Your task to perform on an android device: Is it going to rain tomorrow? Image 0: 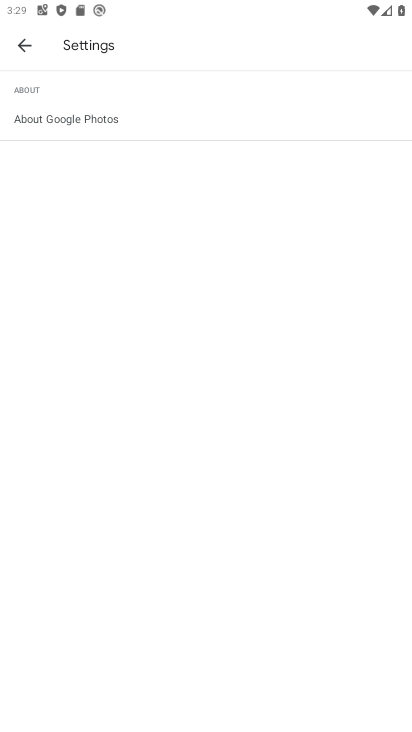
Step 0: press back button
Your task to perform on an android device: Is it going to rain tomorrow? Image 1: 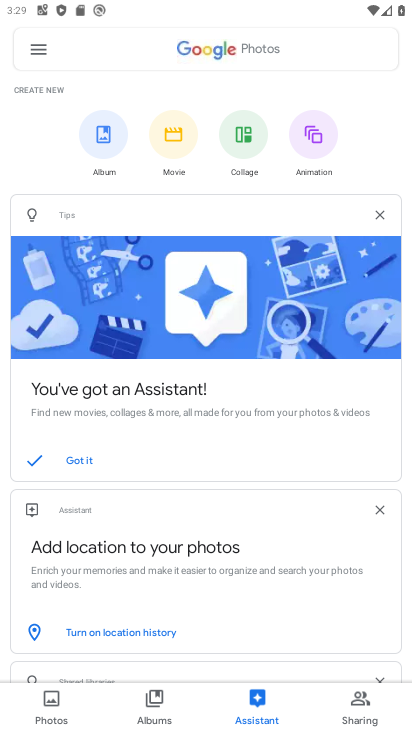
Step 1: press back button
Your task to perform on an android device: Is it going to rain tomorrow? Image 2: 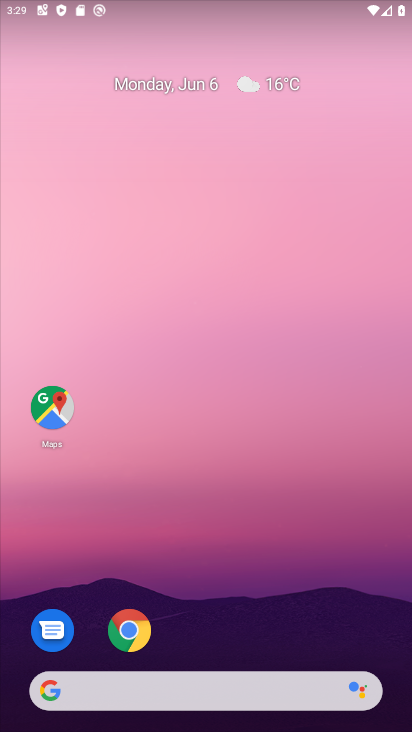
Step 2: click (248, 82)
Your task to perform on an android device: Is it going to rain tomorrow? Image 3: 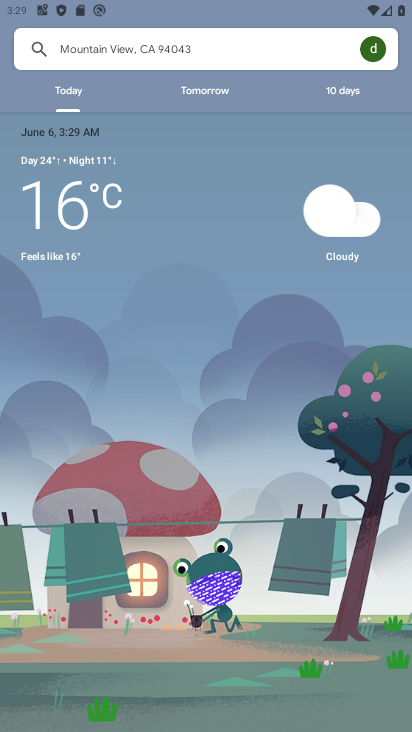
Step 3: click (192, 88)
Your task to perform on an android device: Is it going to rain tomorrow? Image 4: 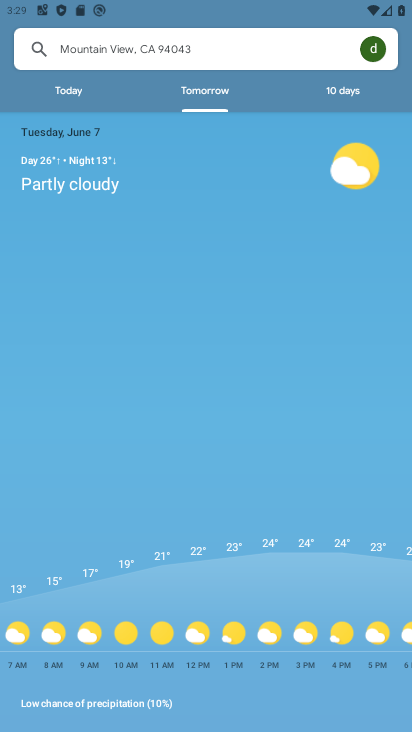
Step 4: task complete